Your task to perform on an android device: toggle notifications settings in the gmail app Image 0: 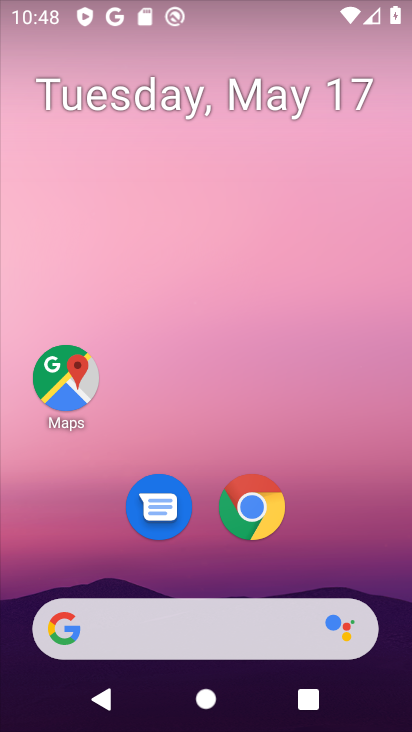
Step 0: drag from (85, 585) to (232, 107)
Your task to perform on an android device: toggle notifications settings in the gmail app Image 1: 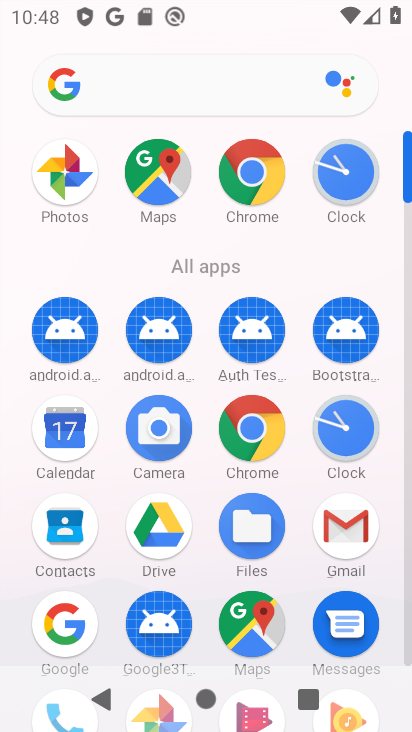
Step 1: drag from (214, 627) to (258, 449)
Your task to perform on an android device: toggle notifications settings in the gmail app Image 2: 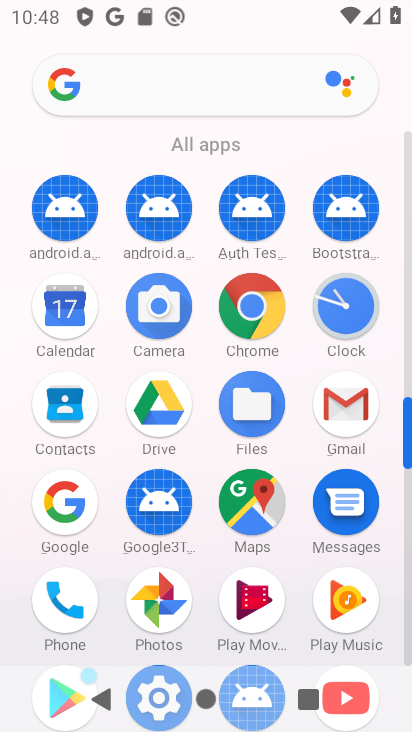
Step 2: click (357, 418)
Your task to perform on an android device: toggle notifications settings in the gmail app Image 3: 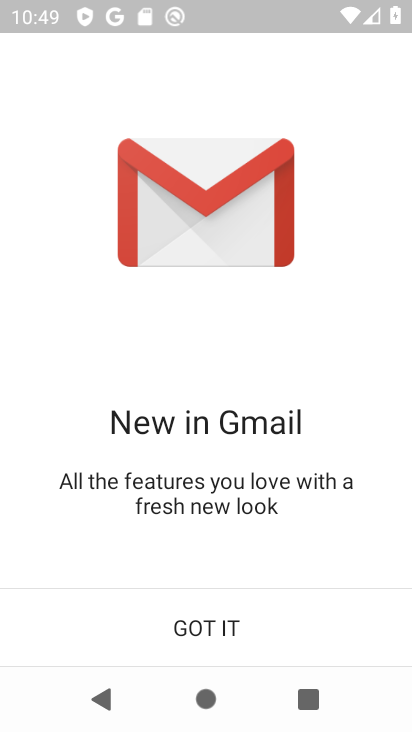
Step 3: click (239, 648)
Your task to perform on an android device: toggle notifications settings in the gmail app Image 4: 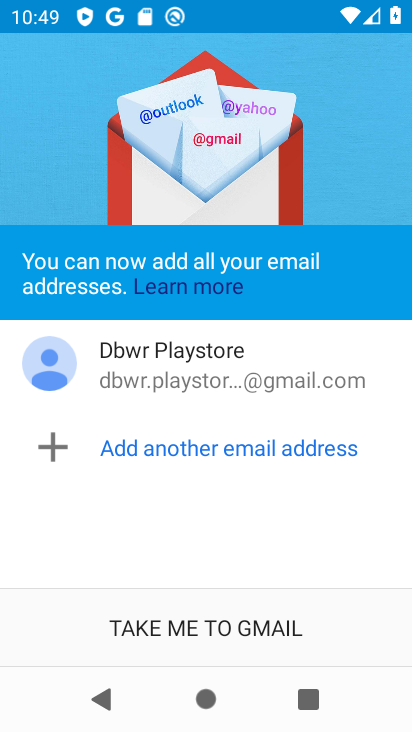
Step 4: click (239, 648)
Your task to perform on an android device: toggle notifications settings in the gmail app Image 5: 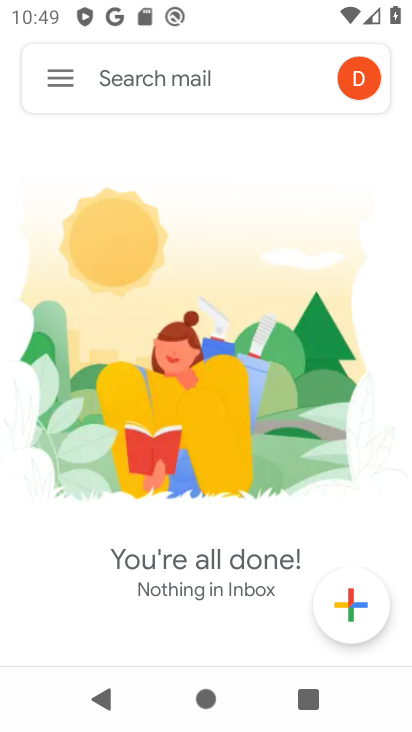
Step 5: click (82, 81)
Your task to perform on an android device: toggle notifications settings in the gmail app Image 6: 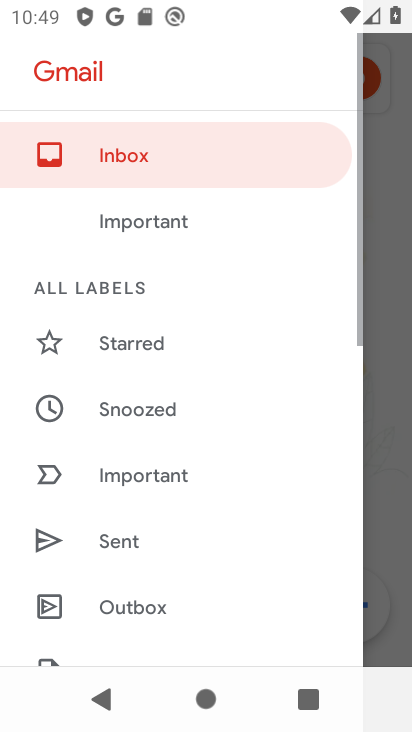
Step 6: drag from (148, 535) to (294, 100)
Your task to perform on an android device: toggle notifications settings in the gmail app Image 7: 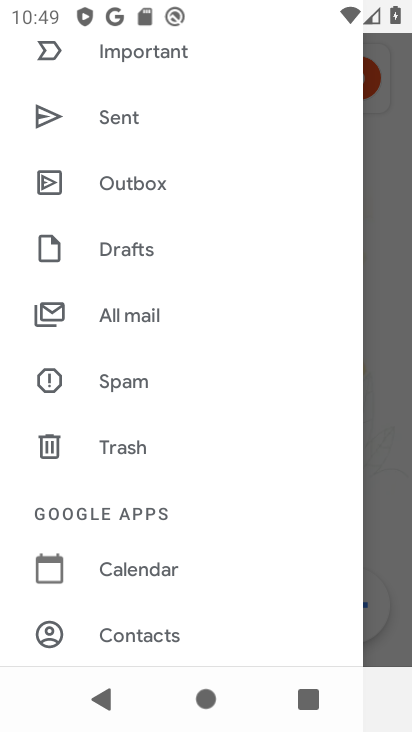
Step 7: drag from (203, 577) to (278, 298)
Your task to perform on an android device: toggle notifications settings in the gmail app Image 8: 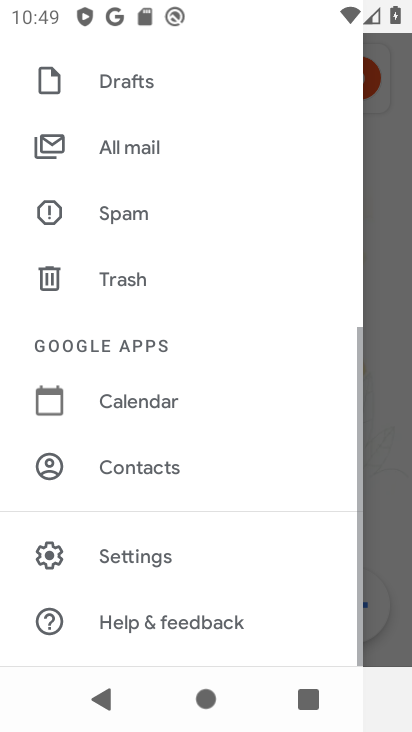
Step 8: click (182, 558)
Your task to perform on an android device: toggle notifications settings in the gmail app Image 9: 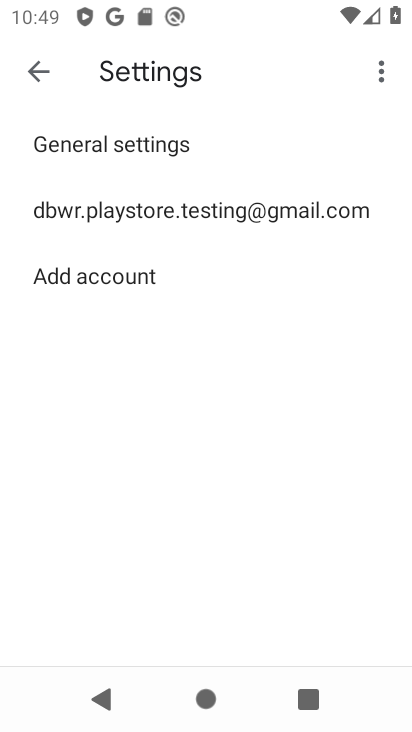
Step 9: click (230, 221)
Your task to perform on an android device: toggle notifications settings in the gmail app Image 10: 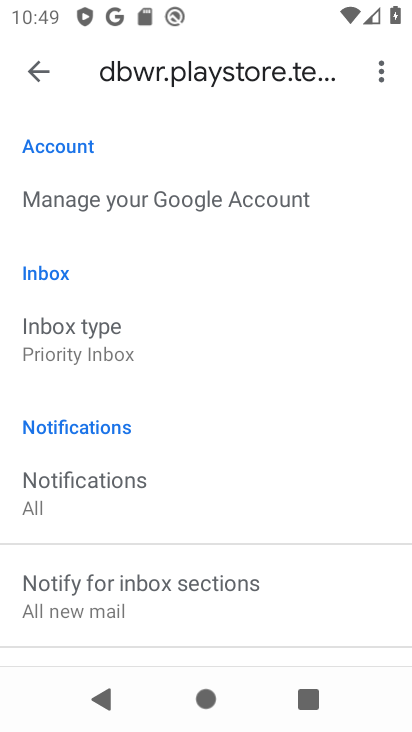
Step 10: drag from (192, 572) to (374, 52)
Your task to perform on an android device: toggle notifications settings in the gmail app Image 11: 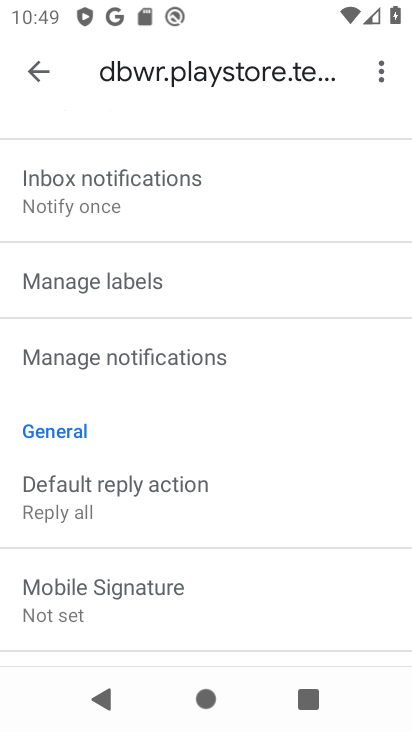
Step 11: drag from (215, 609) to (352, 178)
Your task to perform on an android device: toggle notifications settings in the gmail app Image 12: 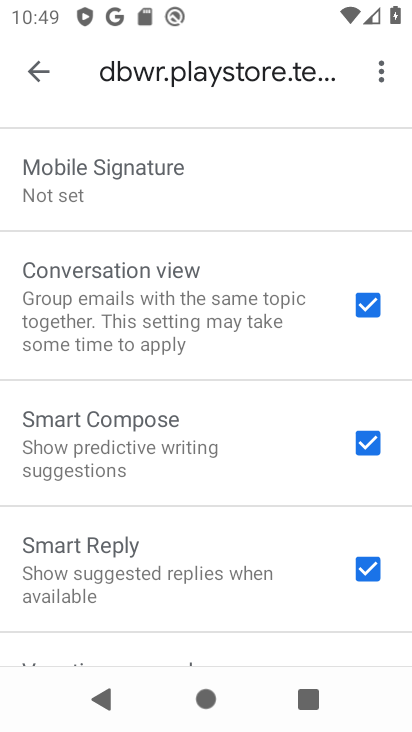
Step 12: drag from (201, 223) to (175, 673)
Your task to perform on an android device: toggle notifications settings in the gmail app Image 13: 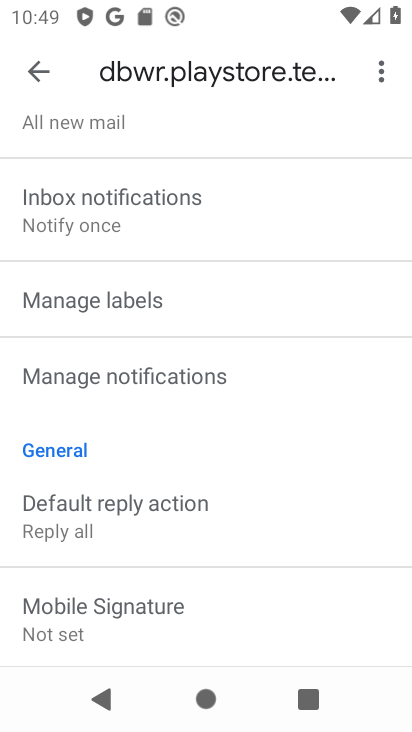
Step 13: click (221, 383)
Your task to perform on an android device: toggle notifications settings in the gmail app Image 14: 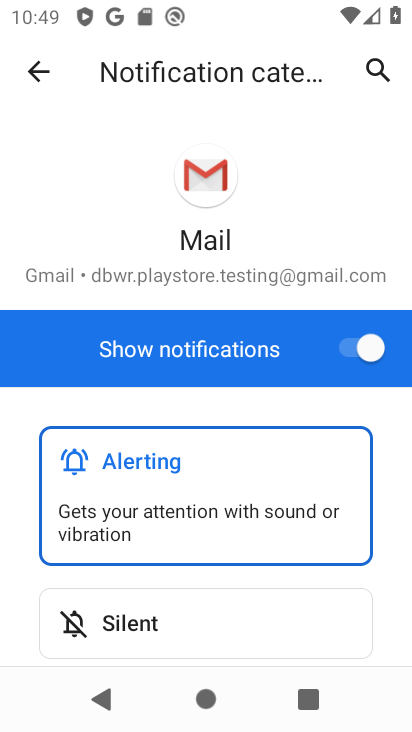
Step 14: click (342, 345)
Your task to perform on an android device: toggle notifications settings in the gmail app Image 15: 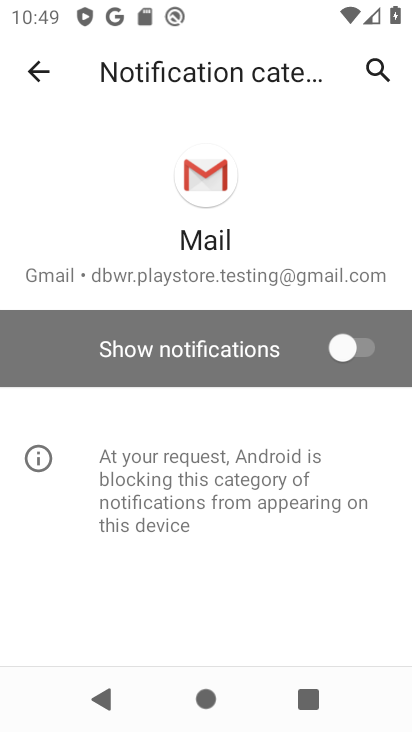
Step 15: task complete